Your task to perform on an android device: Open the phone app and click the voicemail tab. Image 0: 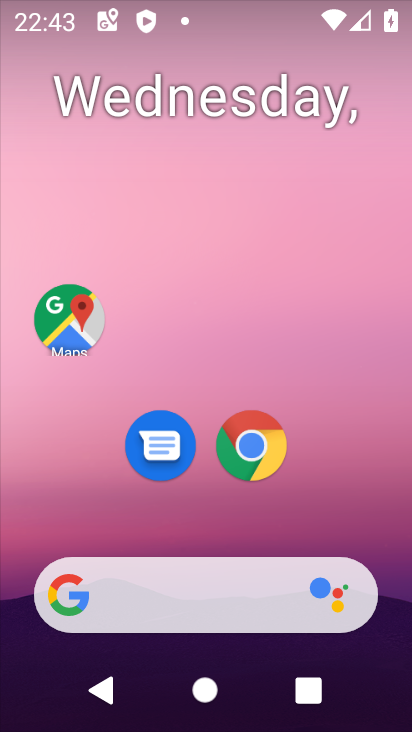
Step 0: drag from (289, 502) to (281, 177)
Your task to perform on an android device: Open the phone app and click the voicemail tab. Image 1: 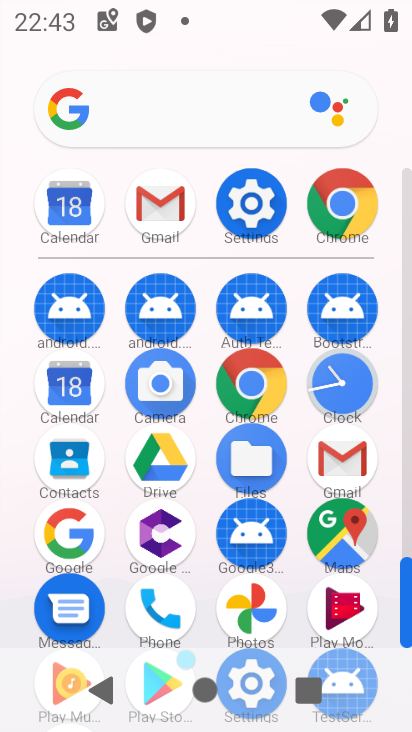
Step 1: click (171, 595)
Your task to perform on an android device: Open the phone app and click the voicemail tab. Image 2: 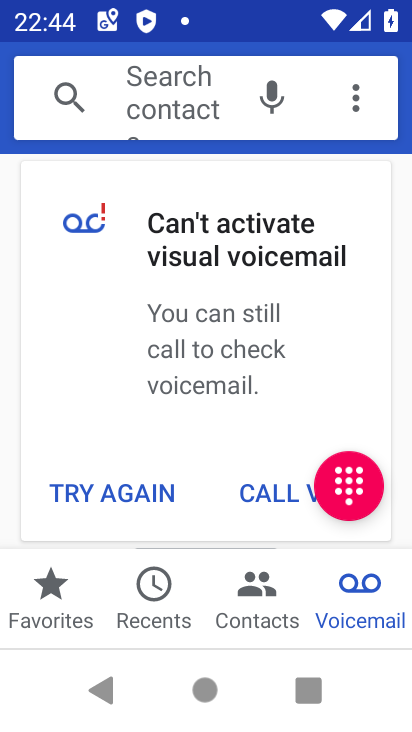
Step 2: task complete